Your task to perform on an android device: Show me productivity apps on the Play Store Image 0: 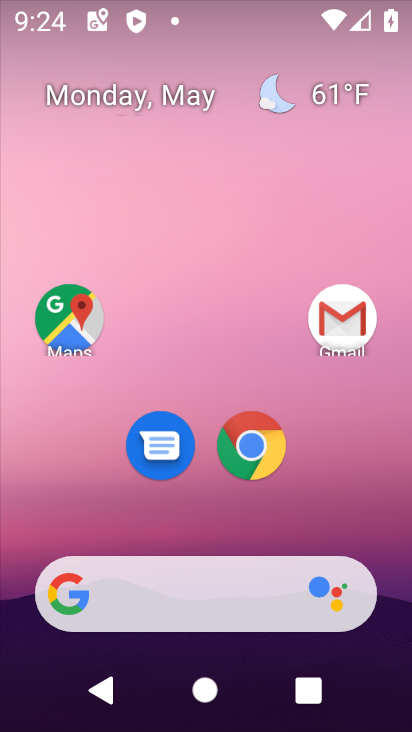
Step 0: drag from (346, 503) to (359, 90)
Your task to perform on an android device: Show me productivity apps on the Play Store Image 1: 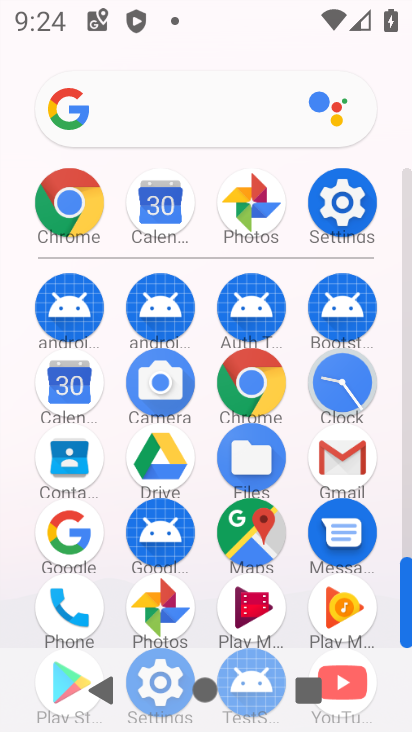
Step 1: drag from (392, 530) to (380, 325)
Your task to perform on an android device: Show me productivity apps on the Play Store Image 2: 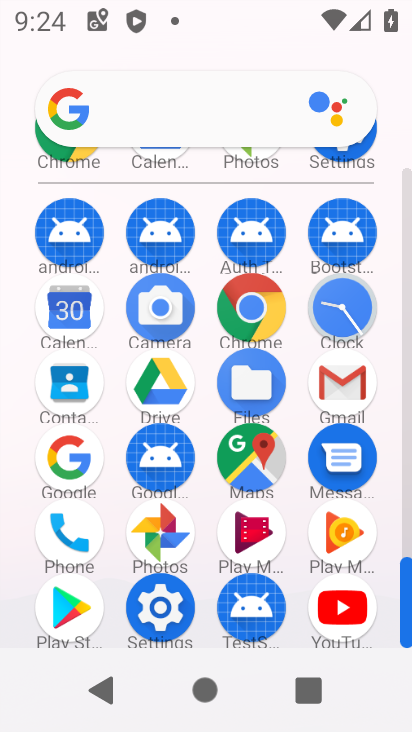
Step 2: click (70, 610)
Your task to perform on an android device: Show me productivity apps on the Play Store Image 3: 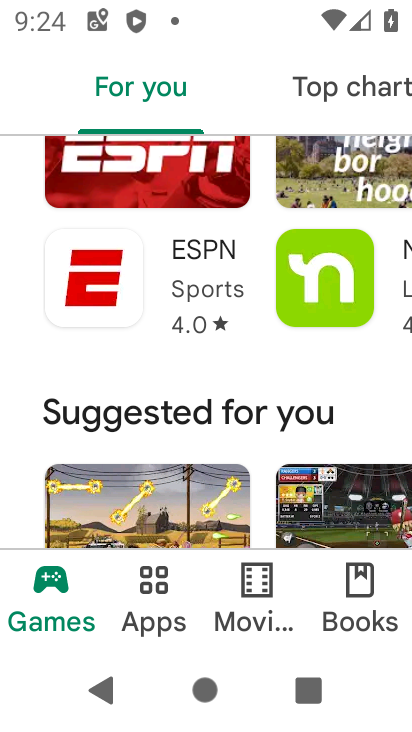
Step 3: click (172, 585)
Your task to perform on an android device: Show me productivity apps on the Play Store Image 4: 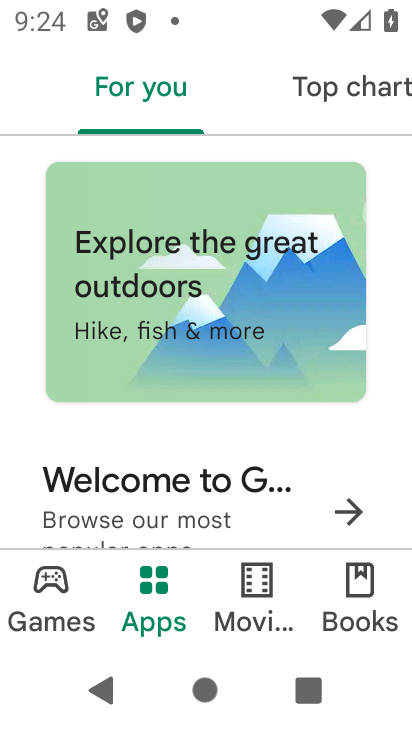
Step 4: task complete